Your task to perform on an android device: Open privacy settings Image 0: 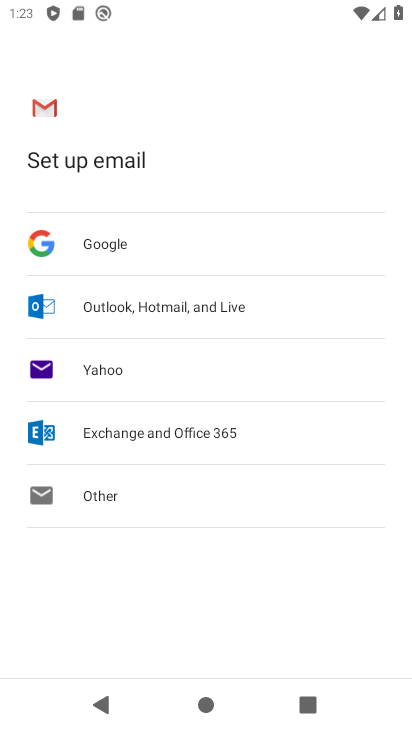
Step 0: press home button
Your task to perform on an android device: Open privacy settings Image 1: 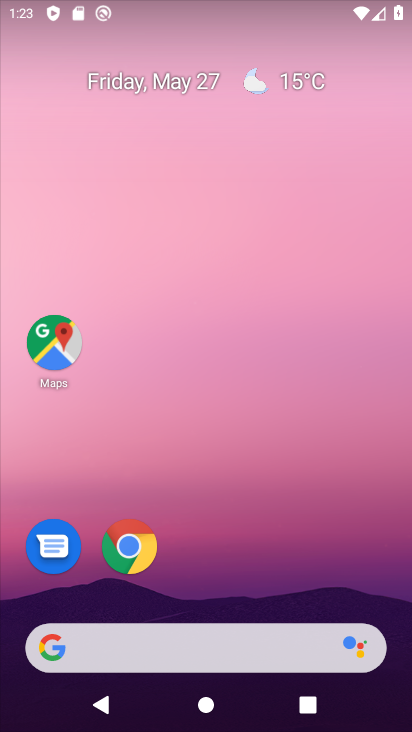
Step 1: drag from (274, 298) to (266, 115)
Your task to perform on an android device: Open privacy settings Image 2: 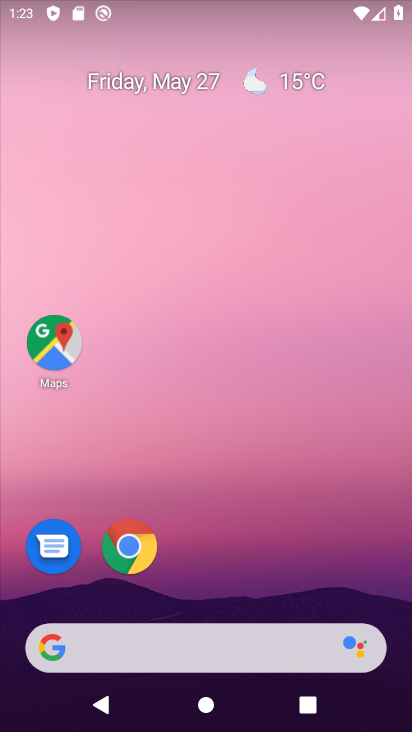
Step 2: drag from (283, 574) to (292, 230)
Your task to perform on an android device: Open privacy settings Image 3: 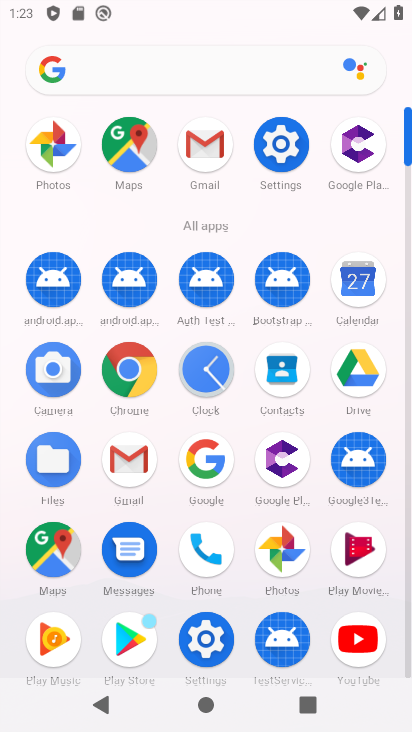
Step 3: click (271, 167)
Your task to perform on an android device: Open privacy settings Image 4: 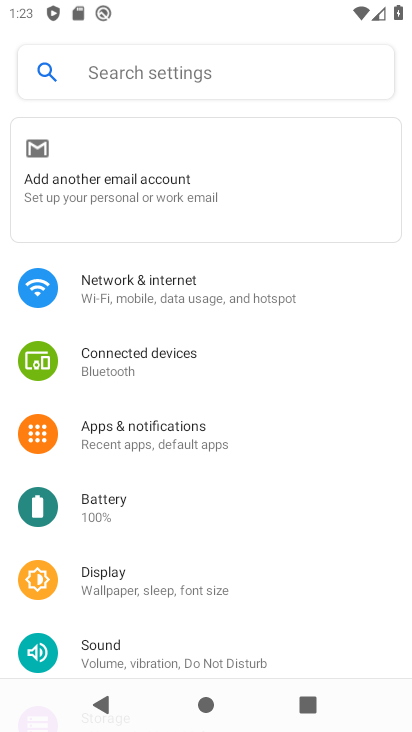
Step 4: drag from (284, 527) to (275, 219)
Your task to perform on an android device: Open privacy settings Image 5: 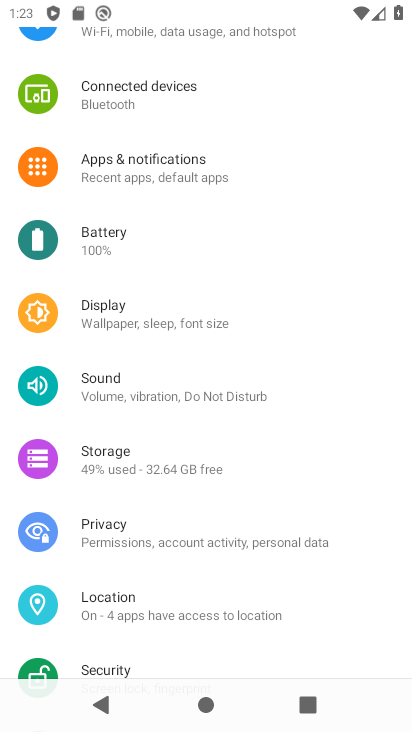
Step 5: click (163, 554)
Your task to perform on an android device: Open privacy settings Image 6: 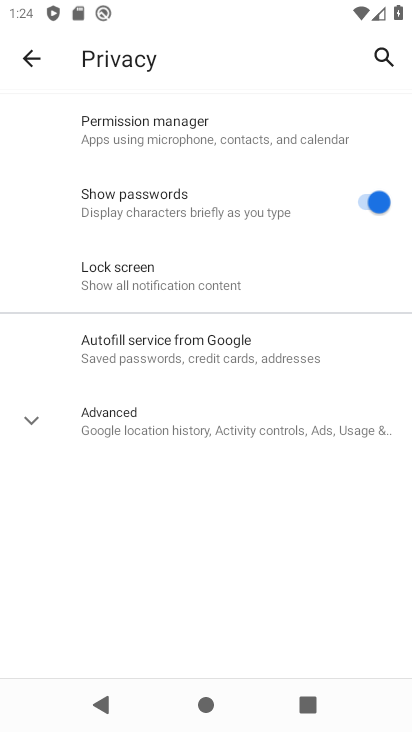
Step 6: task complete